Your task to perform on an android device: install app "Roku - Official Remote Control" Image 0: 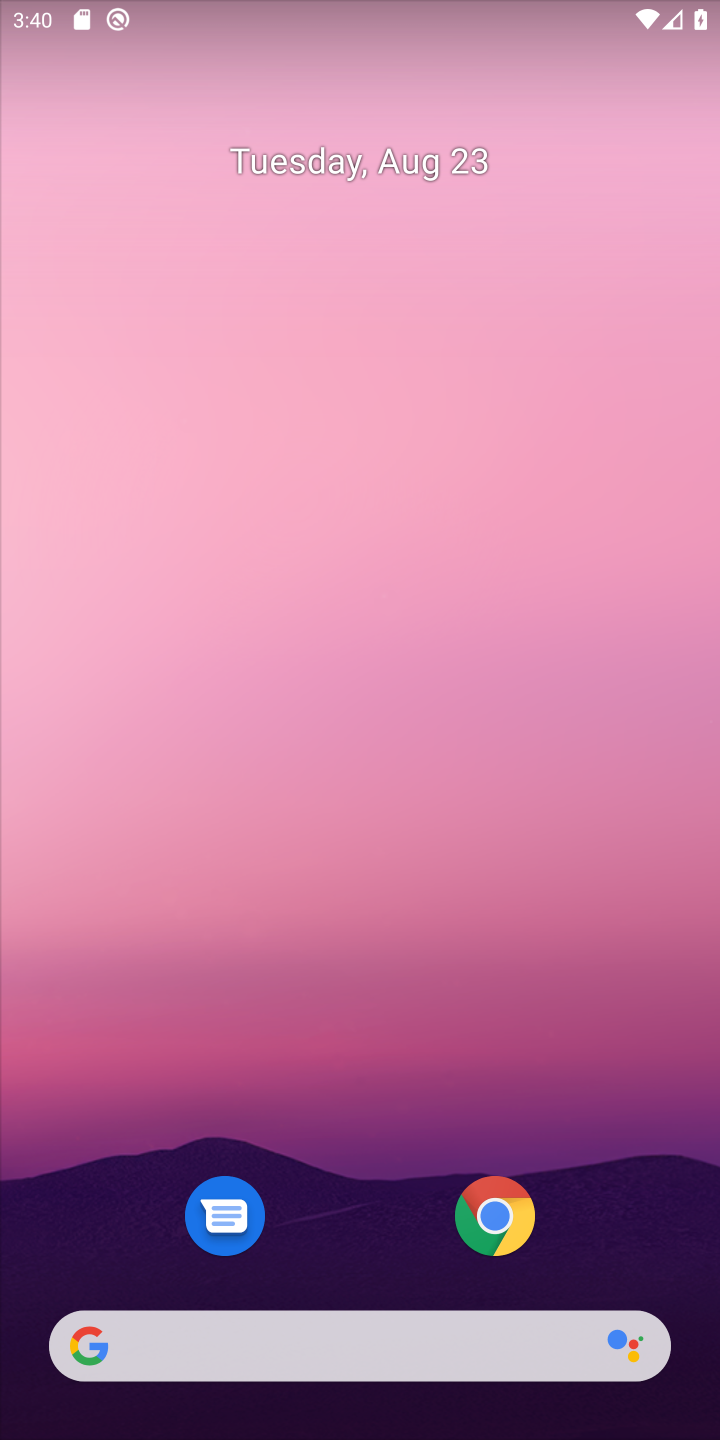
Step 0: drag from (357, 1237) to (526, 8)
Your task to perform on an android device: install app "Roku - Official Remote Control" Image 1: 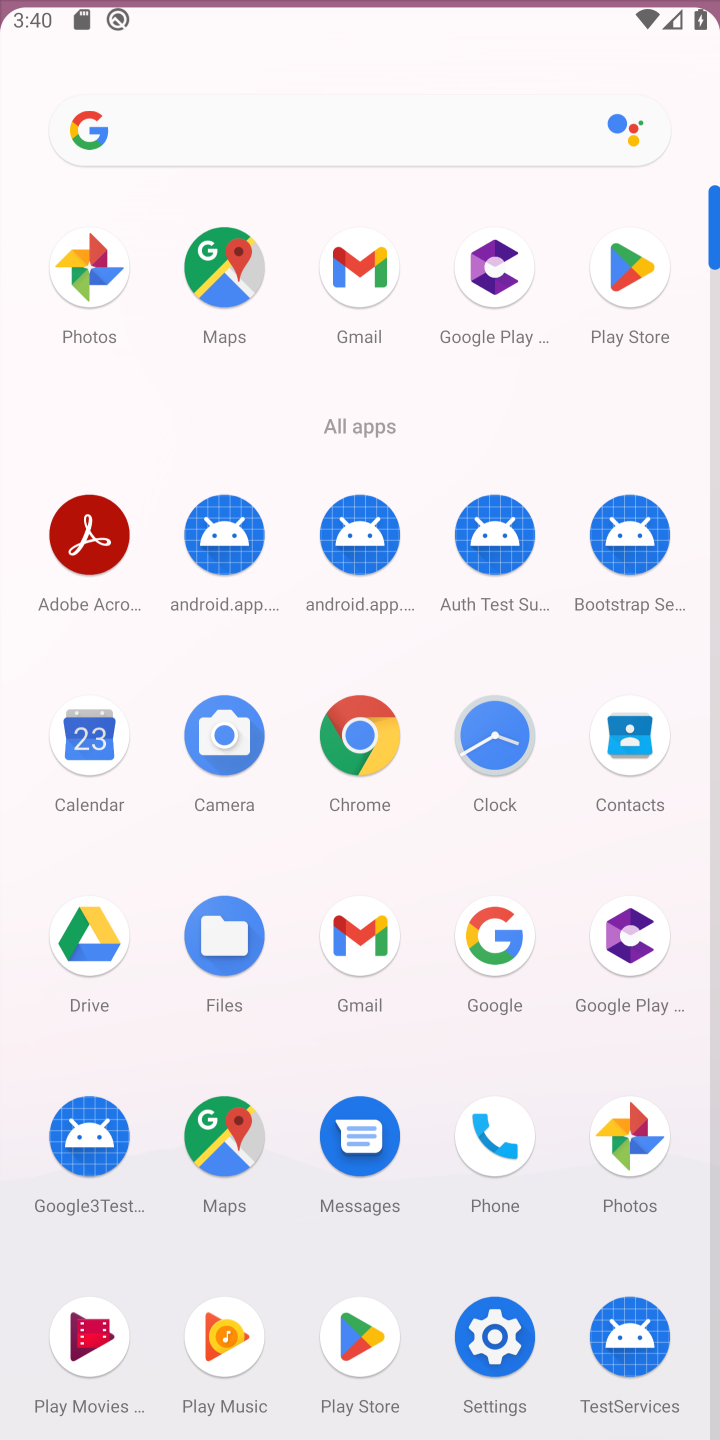
Step 1: click (643, 325)
Your task to perform on an android device: install app "Roku - Official Remote Control" Image 2: 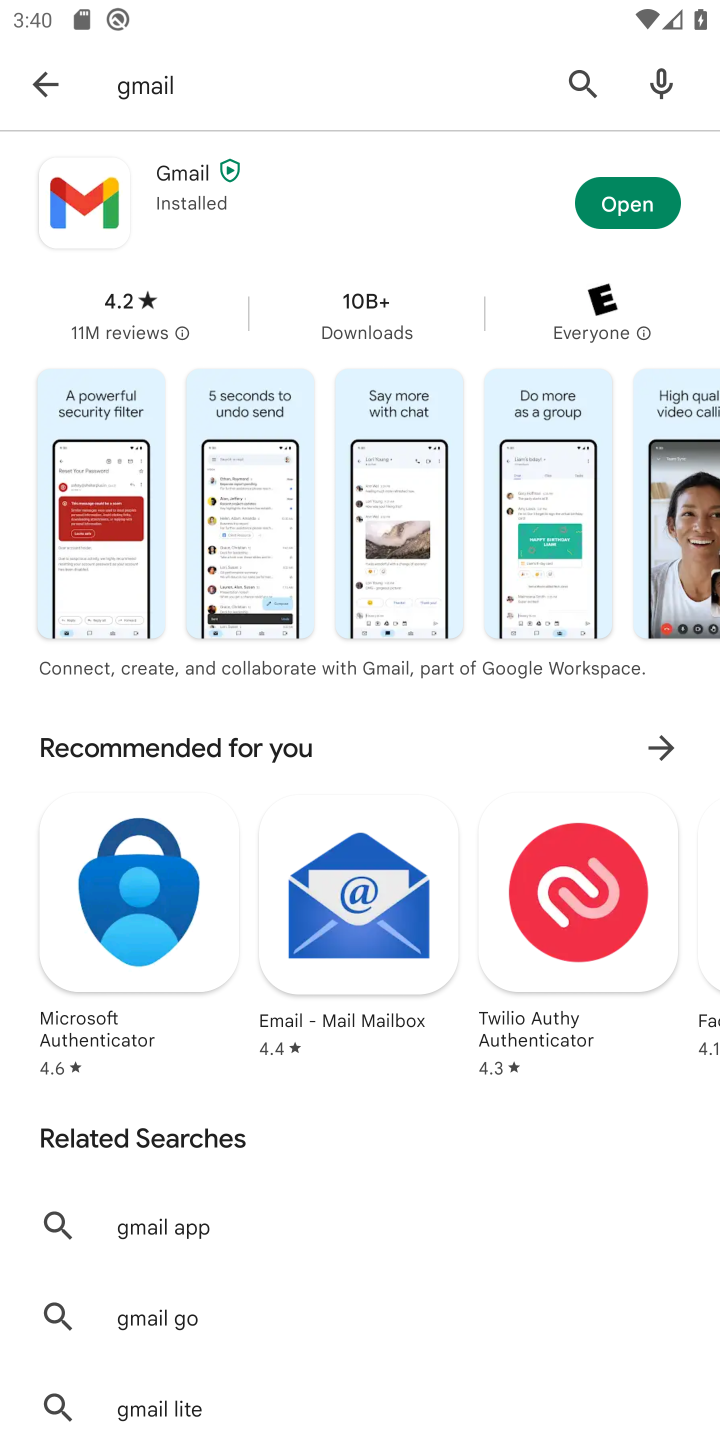
Step 2: click (265, 86)
Your task to perform on an android device: install app "Roku - Official Remote Control" Image 3: 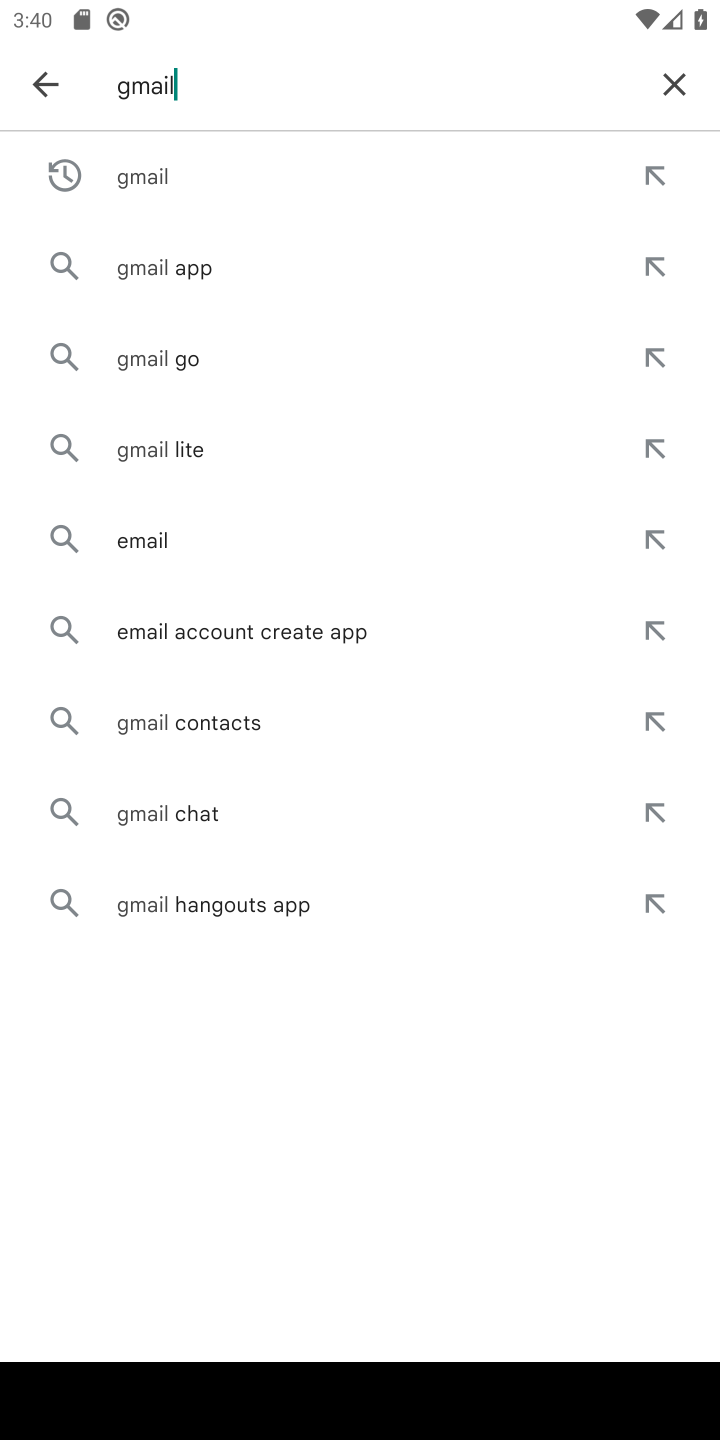
Step 3: click (677, 76)
Your task to perform on an android device: install app "Roku - Official Remote Control" Image 4: 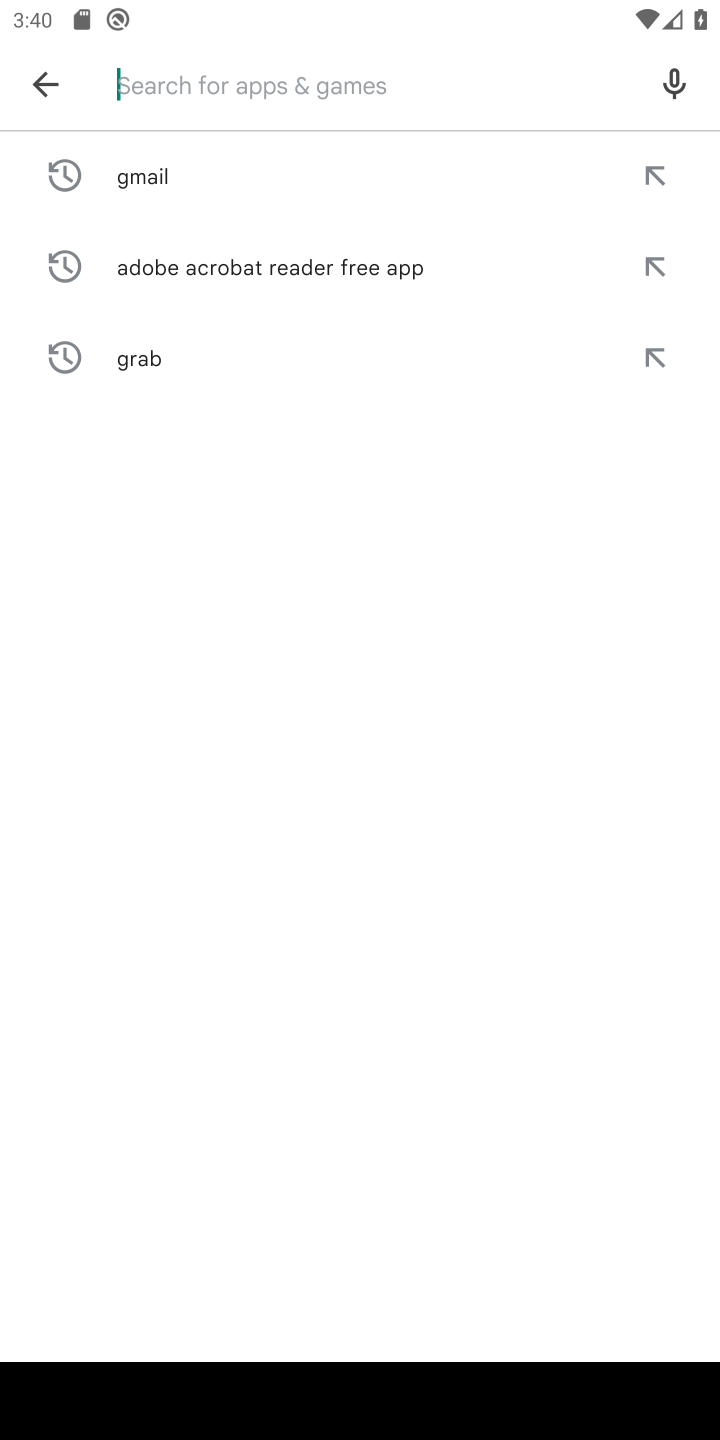
Step 4: type "Roku"
Your task to perform on an android device: install app "Roku - Official Remote Control" Image 5: 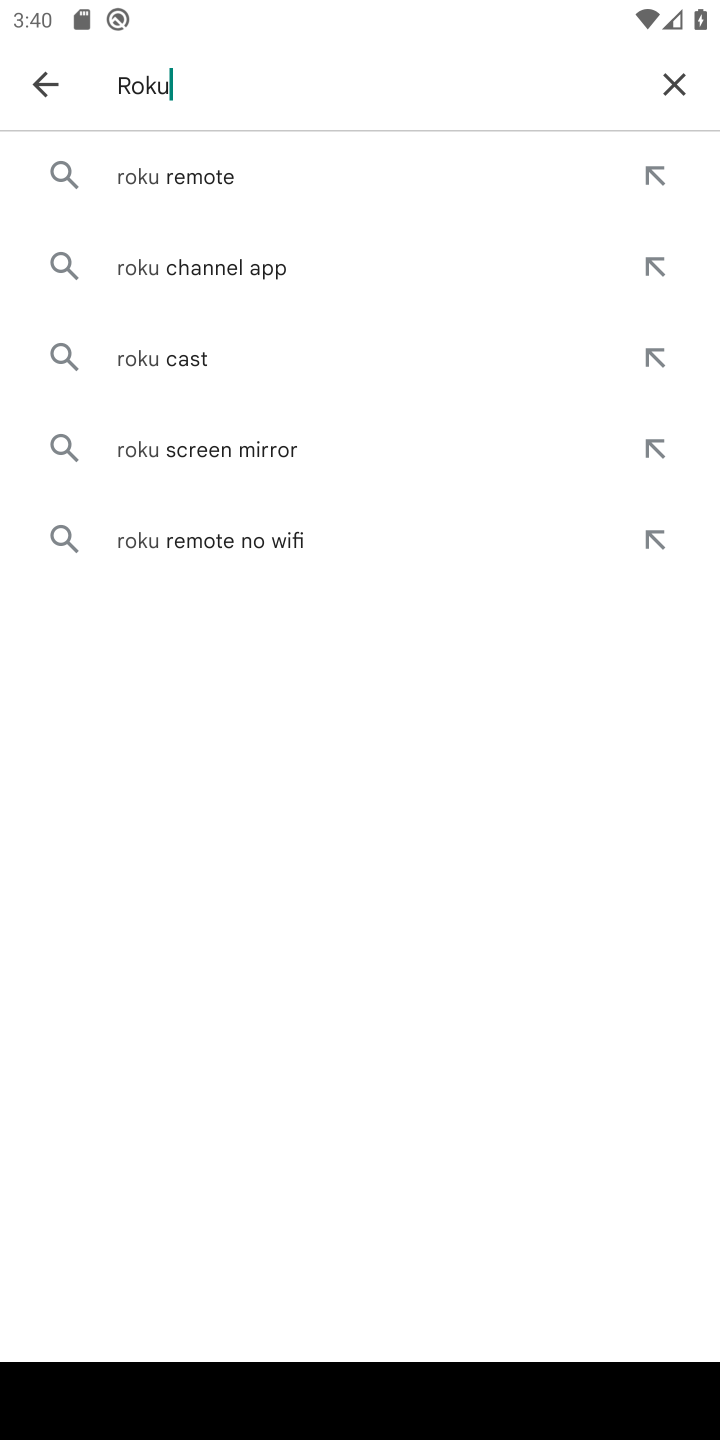
Step 5: click (188, 176)
Your task to perform on an android device: install app "Roku - Official Remote Control" Image 6: 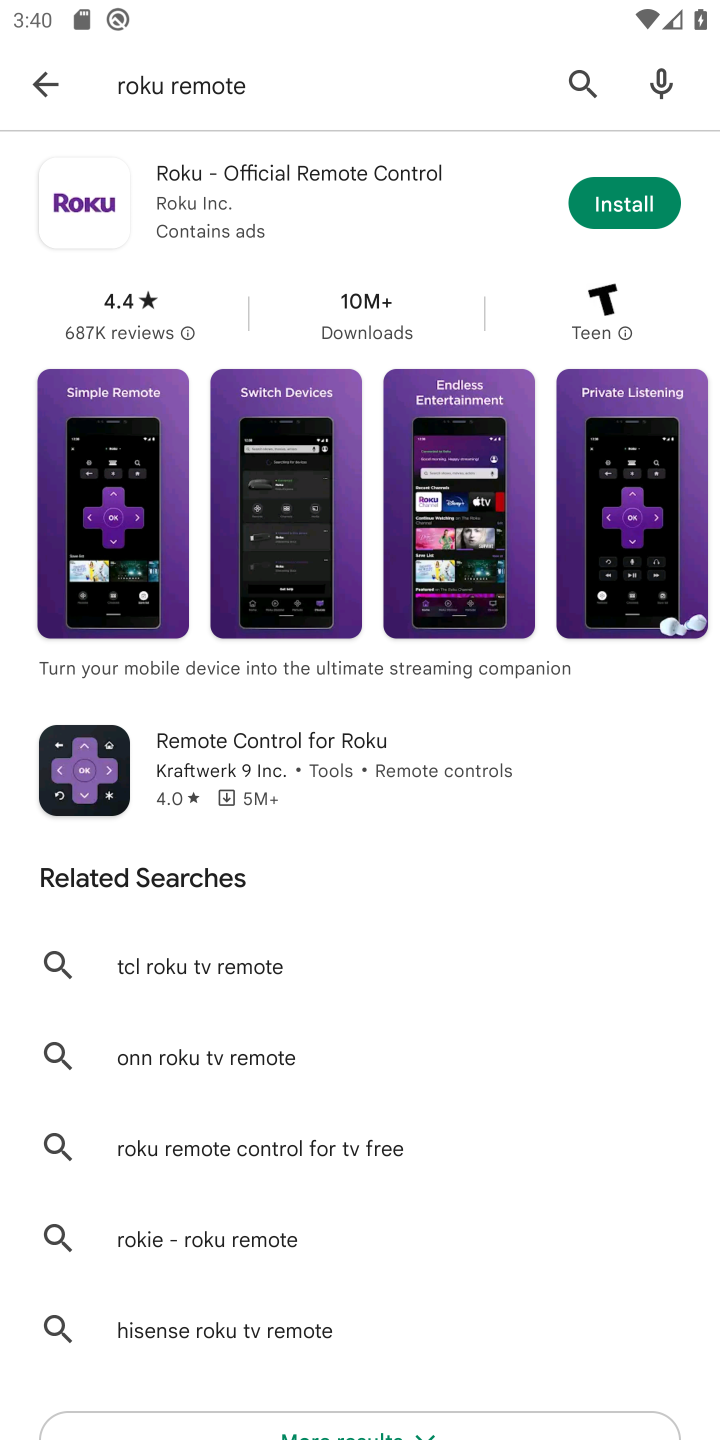
Step 6: click (644, 209)
Your task to perform on an android device: install app "Roku - Official Remote Control" Image 7: 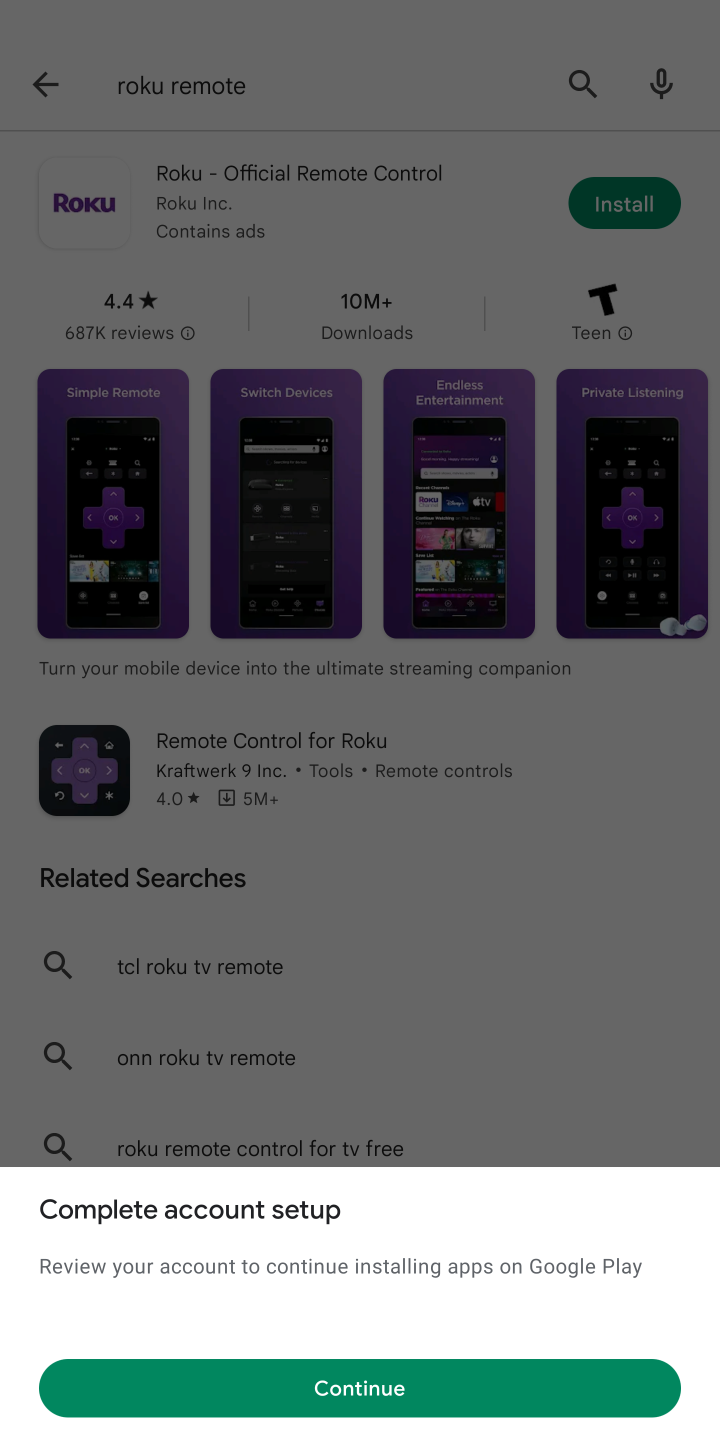
Step 7: click (356, 1387)
Your task to perform on an android device: install app "Roku - Official Remote Control" Image 8: 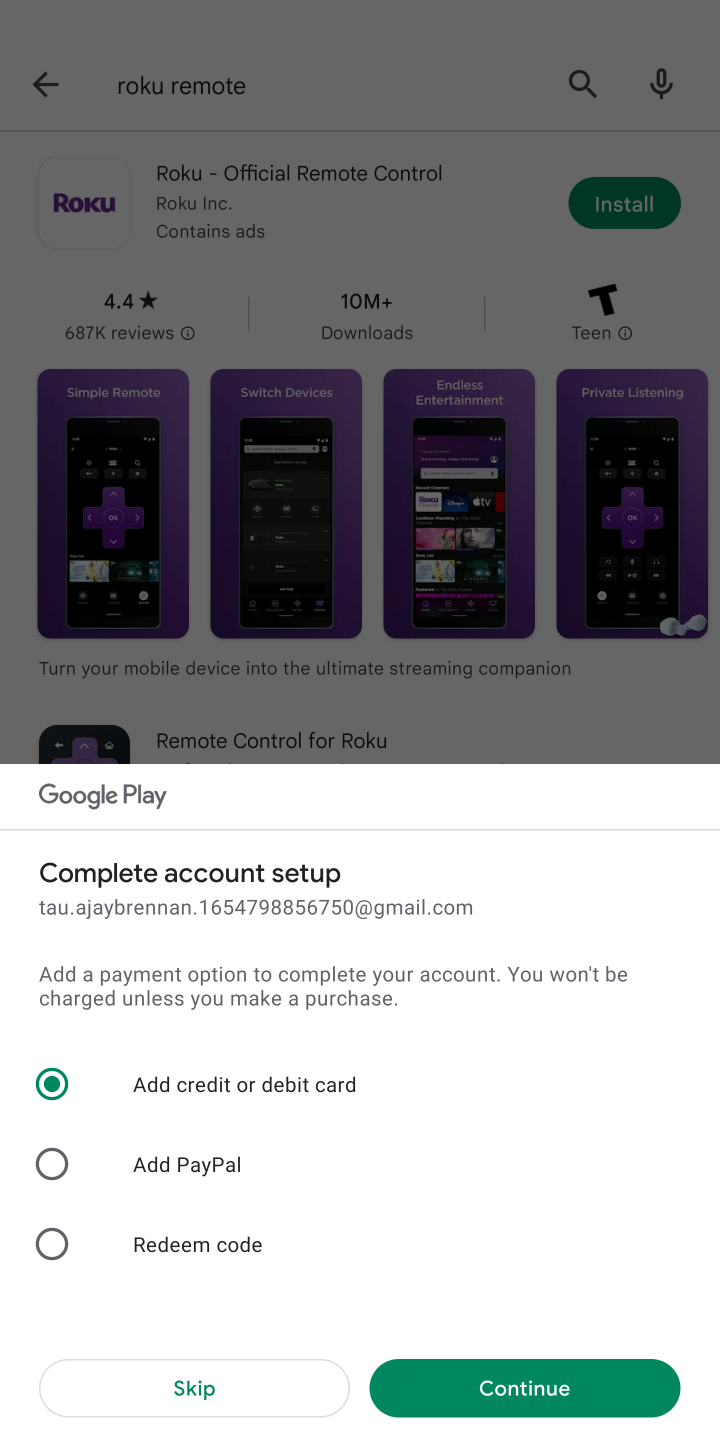
Step 8: click (154, 1382)
Your task to perform on an android device: install app "Roku - Official Remote Control" Image 9: 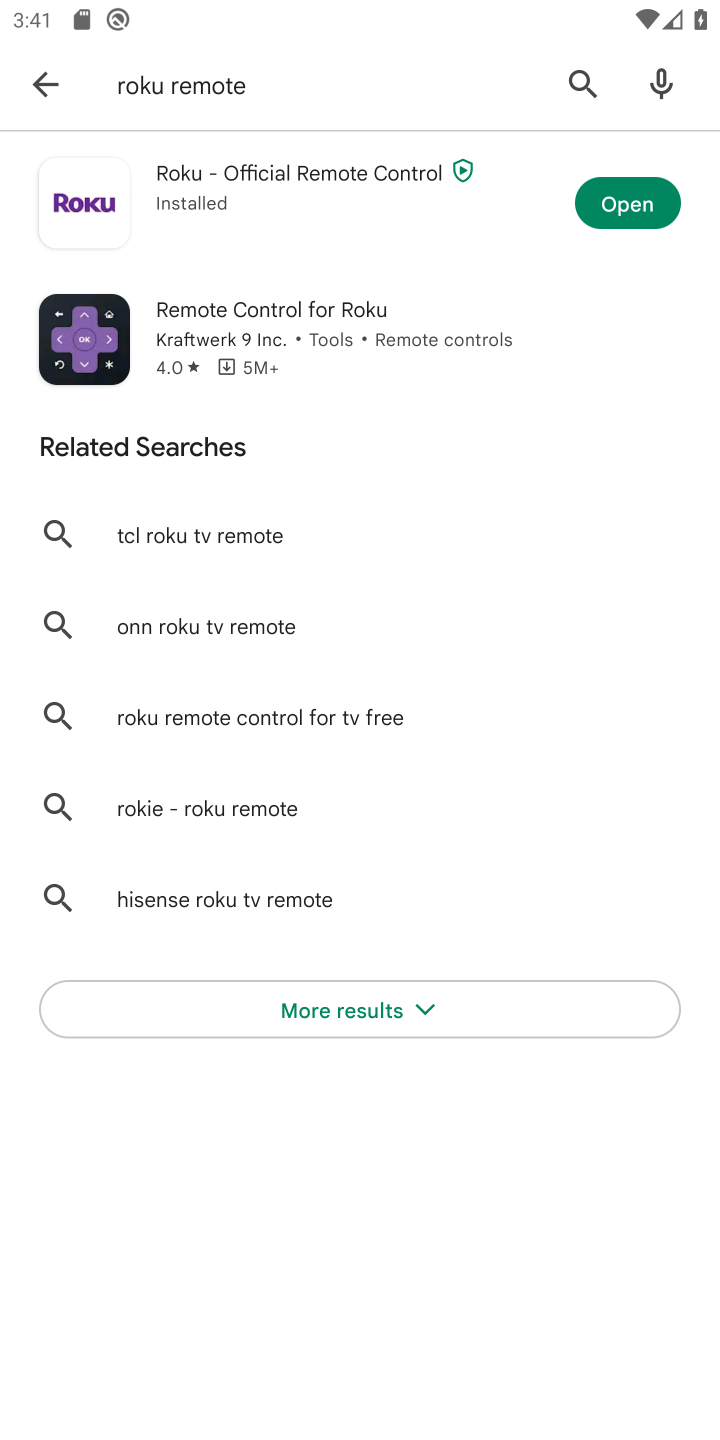
Step 9: task complete